Your task to perform on an android device: Go to Google Image 0: 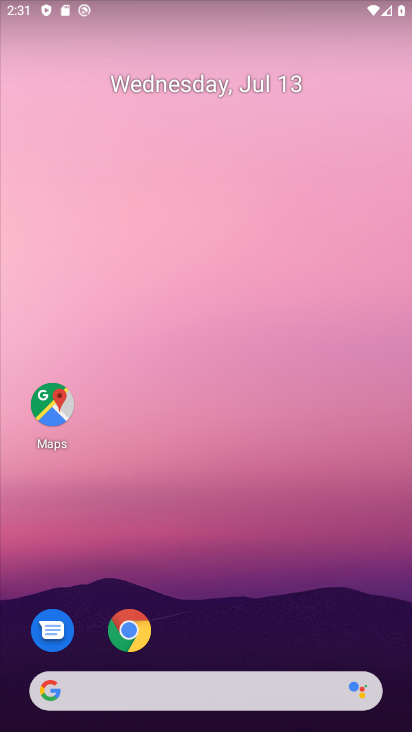
Step 0: drag from (247, 639) to (166, 219)
Your task to perform on an android device: Go to Google Image 1: 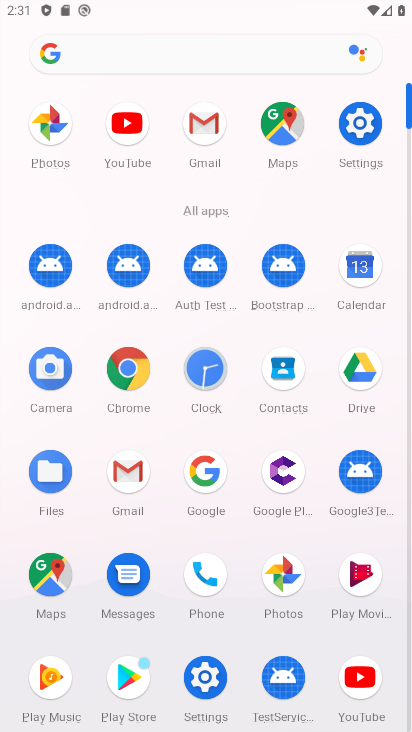
Step 1: click (131, 369)
Your task to perform on an android device: Go to Google Image 2: 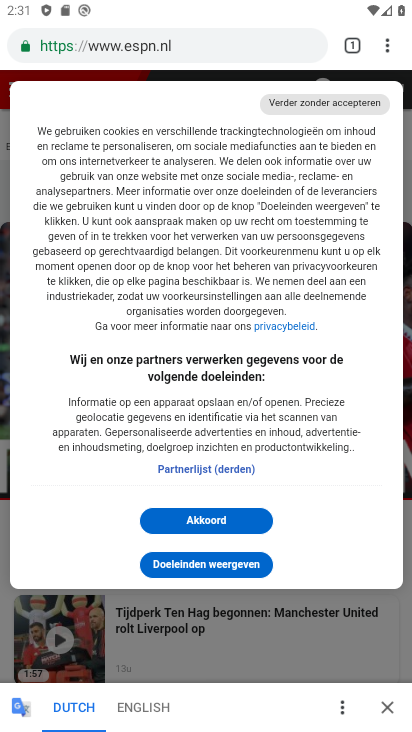
Step 2: task complete